Your task to perform on an android device: see sites visited before in the chrome app Image 0: 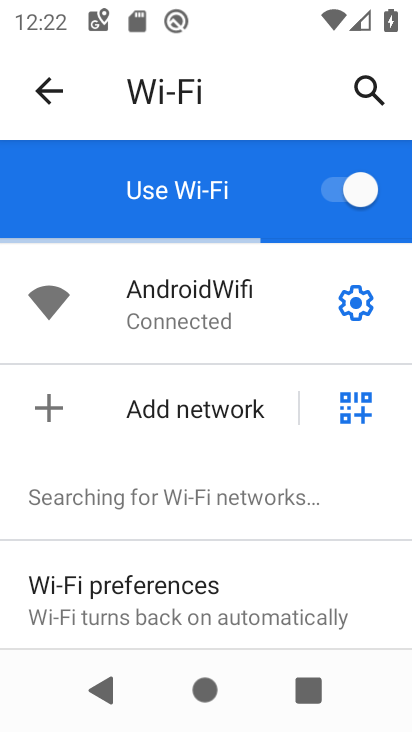
Step 0: press home button
Your task to perform on an android device: see sites visited before in the chrome app Image 1: 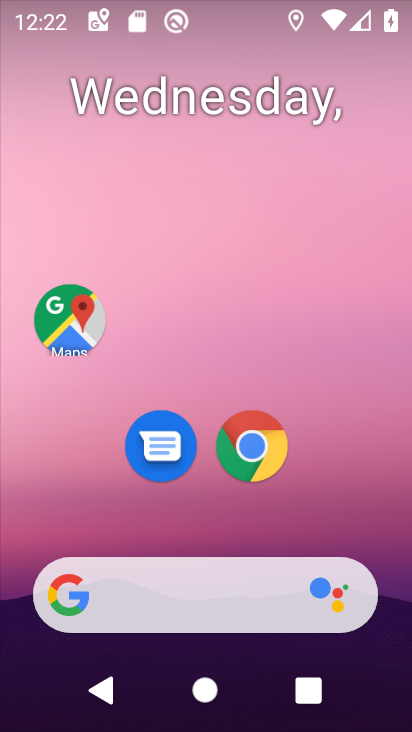
Step 1: click (257, 449)
Your task to perform on an android device: see sites visited before in the chrome app Image 2: 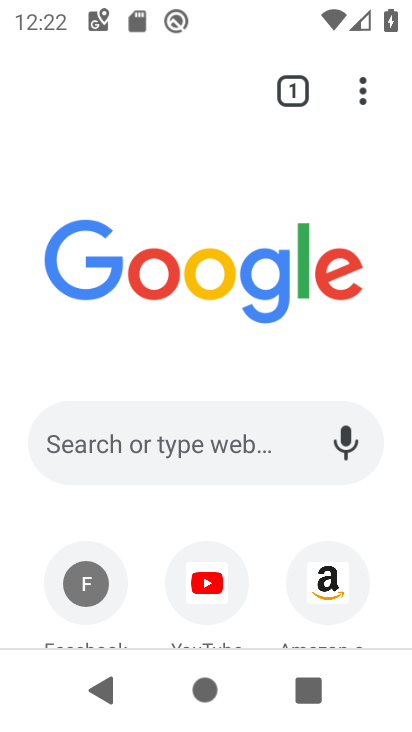
Step 2: click (367, 92)
Your task to perform on an android device: see sites visited before in the chrome app Image 3: 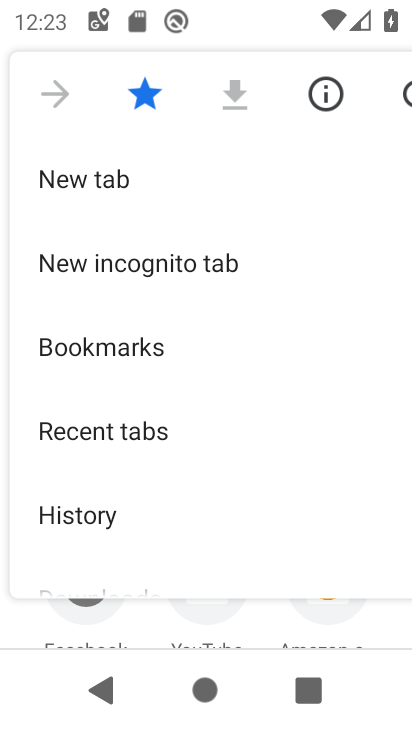
Step 3: click (87, 524)
Your task to perform on an android device: see sites visited before in the chrome app Image 4: 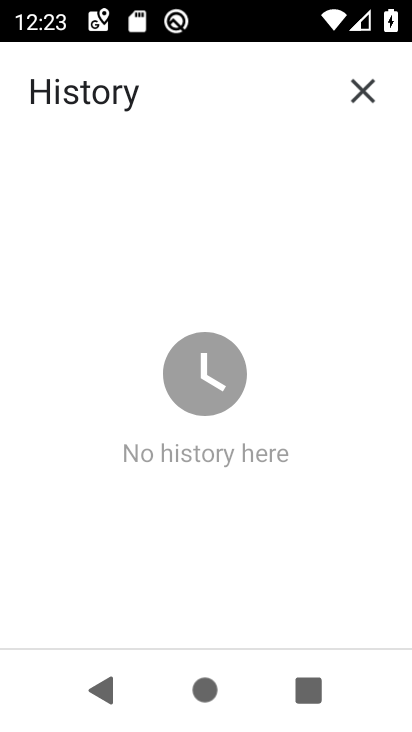
Step 4: task complete